Your task to perform on an android device: Toggle the flashlight Image 0: 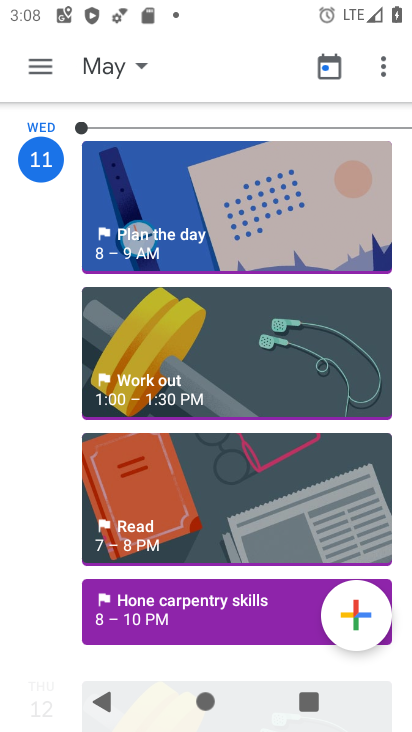
Step 0: press home button
Your task to perform on an android device: Toggle the flashlight Image 1: 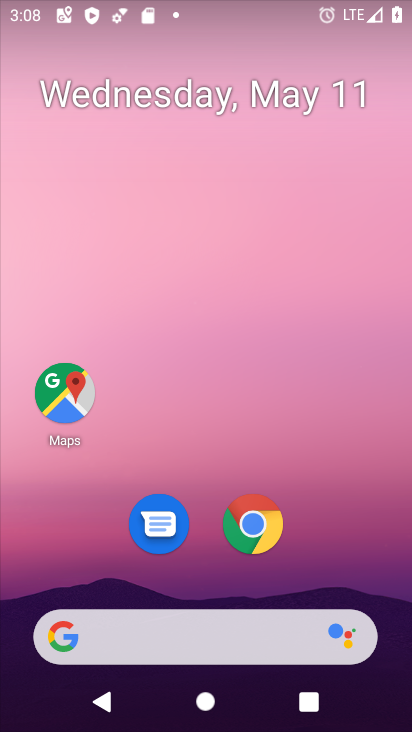
Step 1: drag from (290, 500) to (329, 69)
Your task to perform on an android device: Toggle the flashlight Image 2: 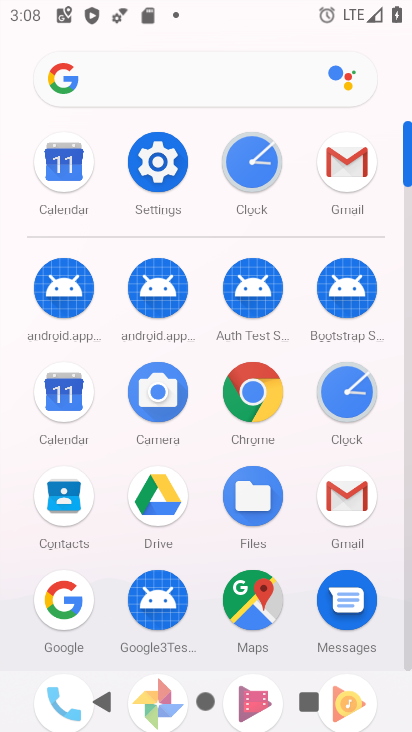
Step 2: click (168, 164)
Your task to perform on an android device: Toggle the flashlight Image 3: 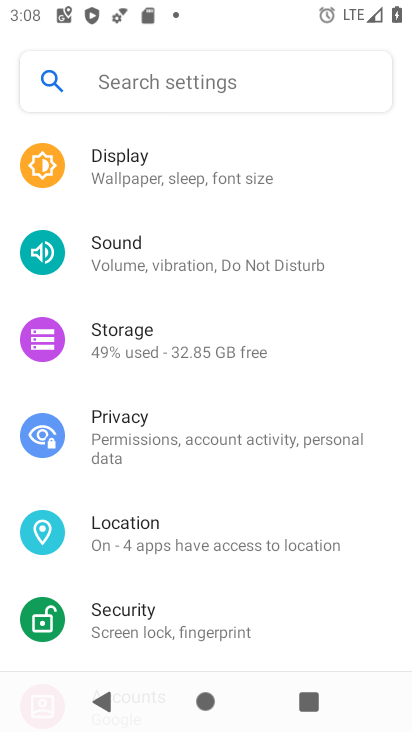
Step 3: click (204, 84)
Your task to perform on an android device: Toggle the flashlight Image 4: 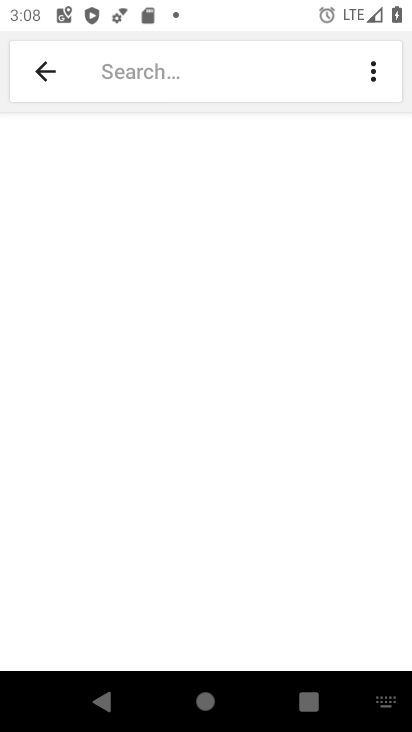
Step 4: type "Flashlight"
Your task to perform on an android device: Toggle the flashlight Image 5: 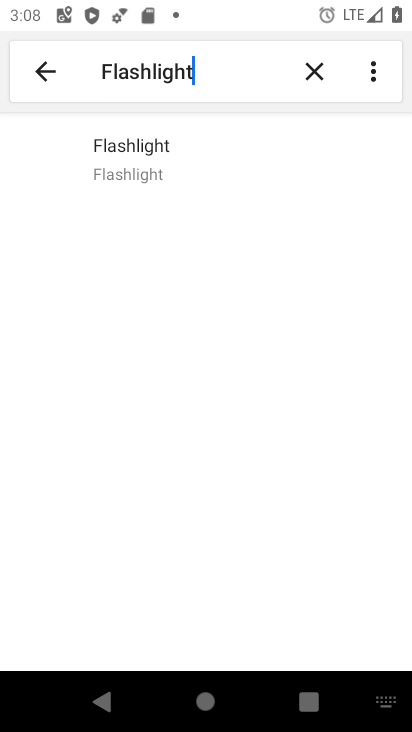
Step 5: click (150, 160)
Your task to perform on an android device: Toggle the flashlight Image 6: 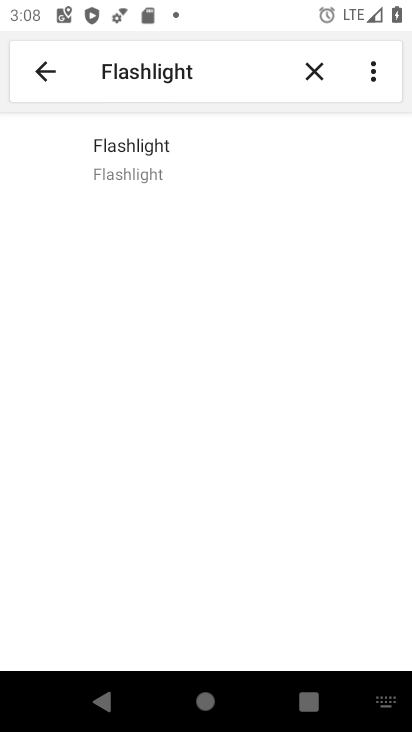
Step 6: click (149, 148)
Your task to perform on an android device: Toggle the flashlight Image 7: 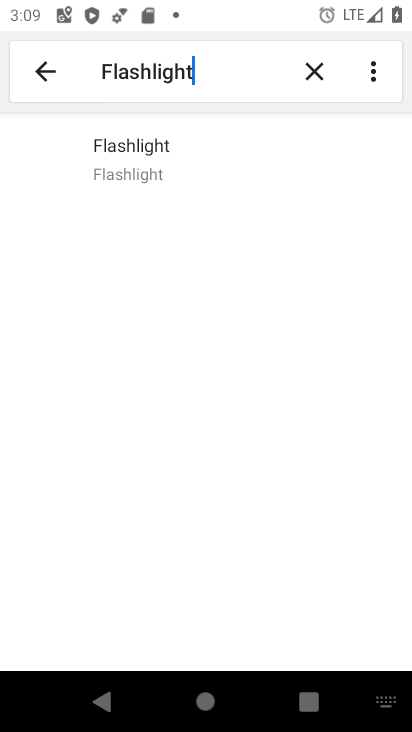
Step 7: click (149, 148)
Your task to perform on an android device: Toggle the flashlight Image 8: 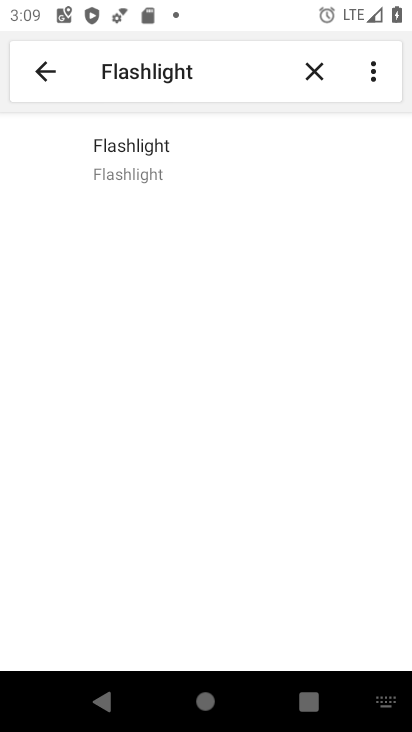
Step 8: task complete